Your task to perform on an android device: change keyboard looks Image 0: 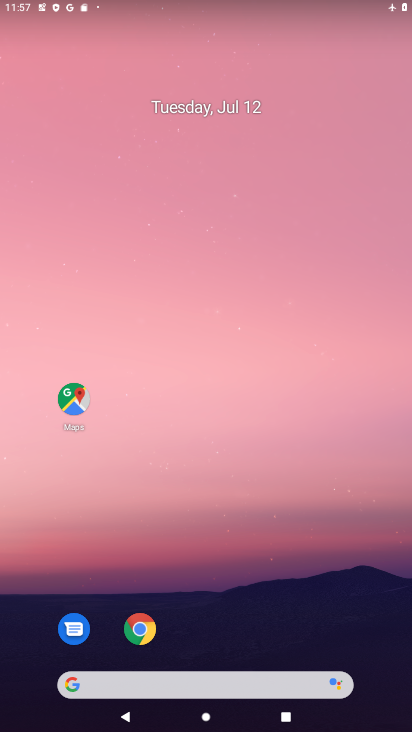
Step 0: drag from (205, 615) to (291, 200)
Your task to perform on an android device: change keyboard looks Image 1: 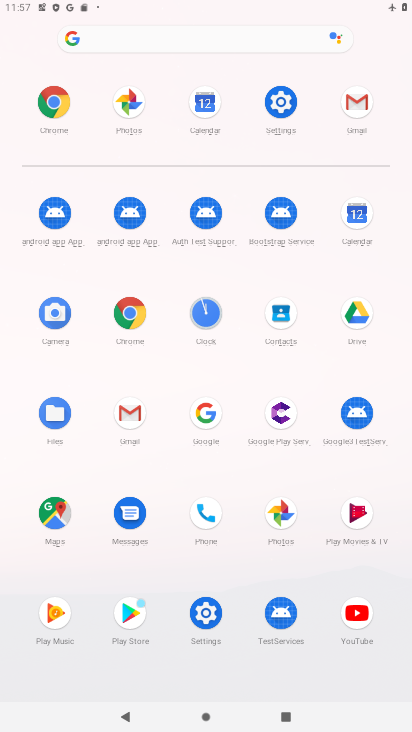
Step 1: click (290, 98)
Your task to perform on an android device: change keyboard looks Image 2: 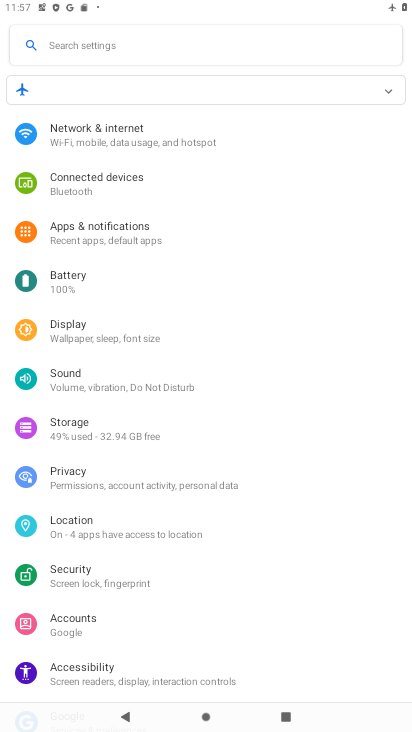
Step 2: drag from (80, 586) to (46, 586)
Your task to perform on an android device: change keyboard looks Image 3: 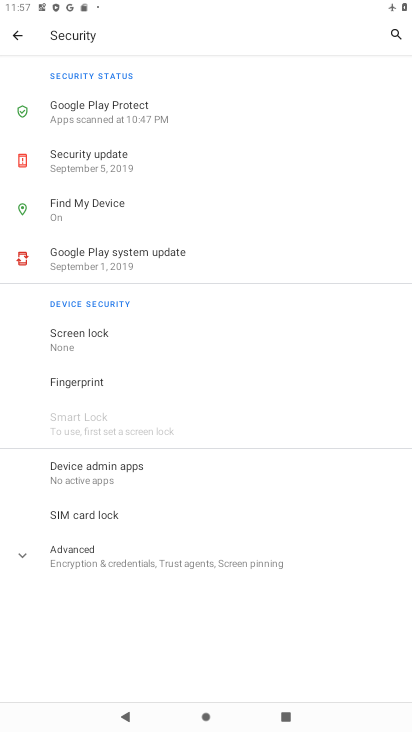
Step 3: click (22, 29)
Your task to perform on an android device: change keyboard looks Image 4: 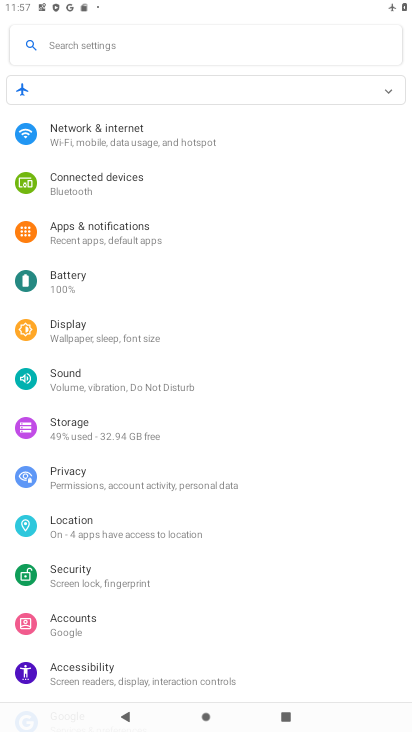
Step 4: click (73, 659)
Your task to perform on an android device: change keyboard looks Image 5: 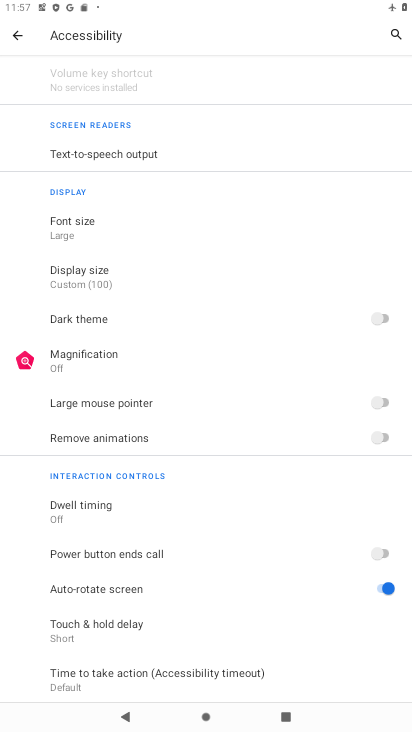
Step 5: click (17, 30)
Your task to perform on an android device: change keyboard looks Image 6: 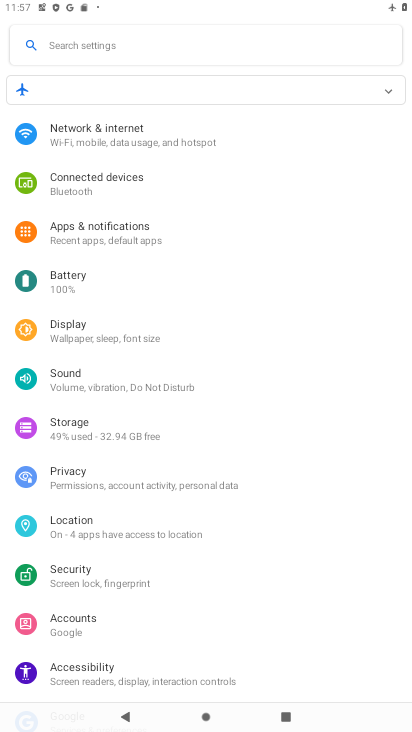
Step 6: drag from (153, 672) to (188, 375)
Your task to perform on an android device: change keyboard looks Image 7: 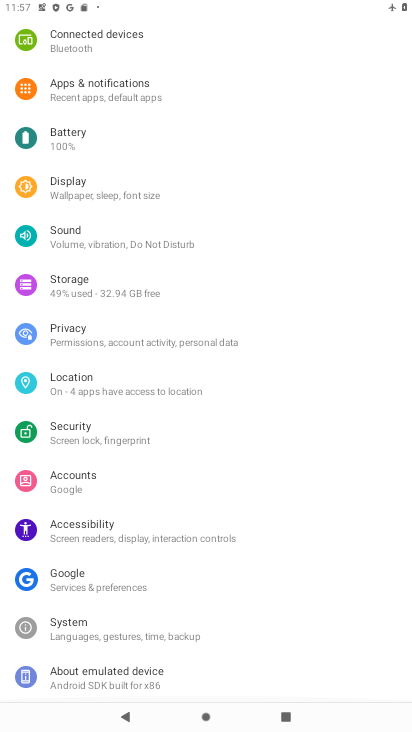
Step 7: click (107, 644)
Your task to perform on an android device: change keyboard looks Image 8: 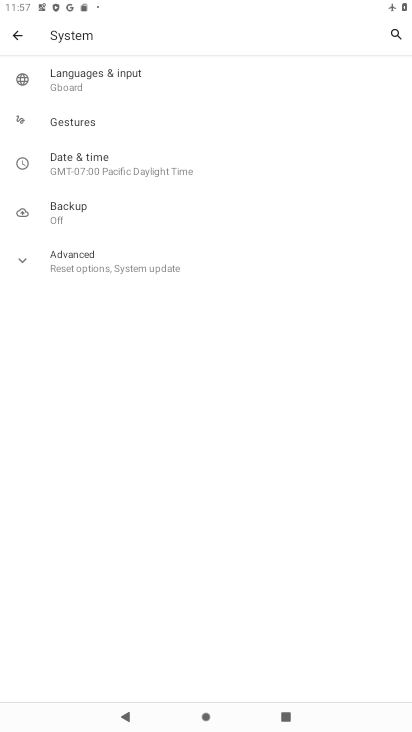
Step 8: click (56, 71)
Your task to perform on an android device: change keyboard looks Image 9: 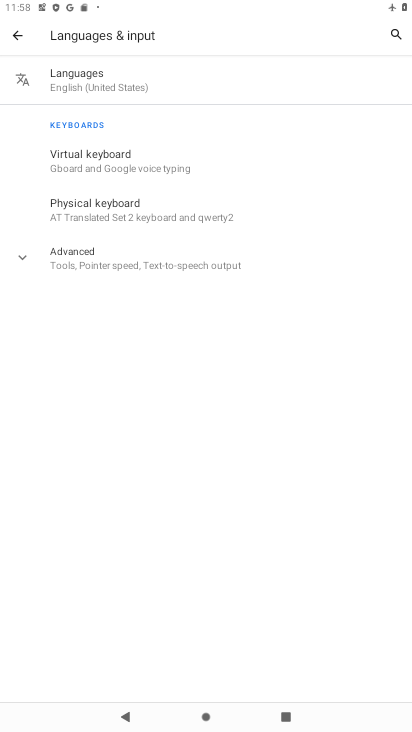
Step 9: click (78, 72)
Your task to perform on an android device: change keyboard looks Image 10: 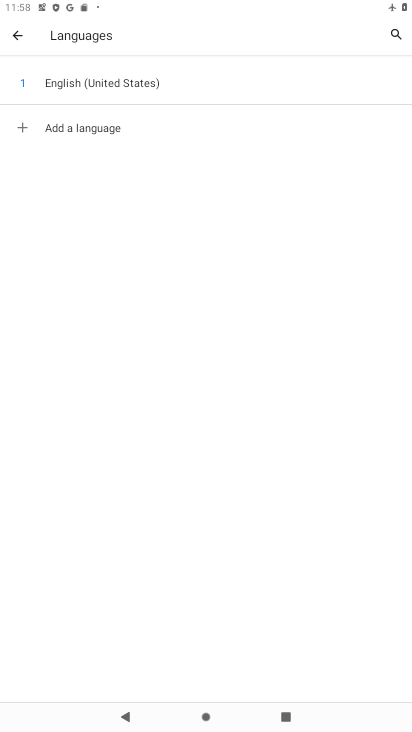
Step 10: click (16, 28)
Your task to perform on an android device: change keyboard looks Image 11: 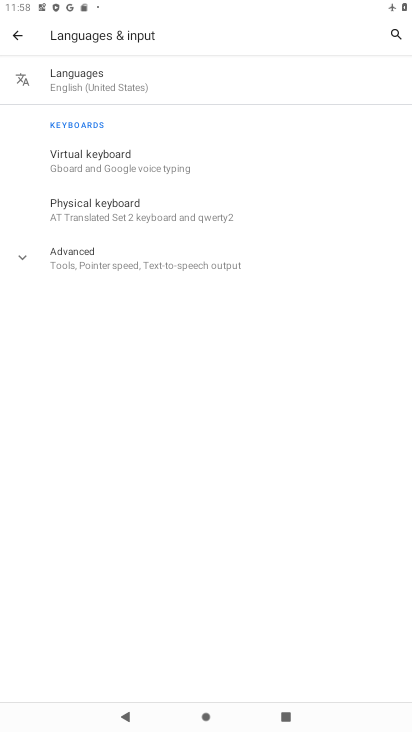
Step 11: click (72, 141)
Your task to perform on an android device: change keyboard looks Image 12: 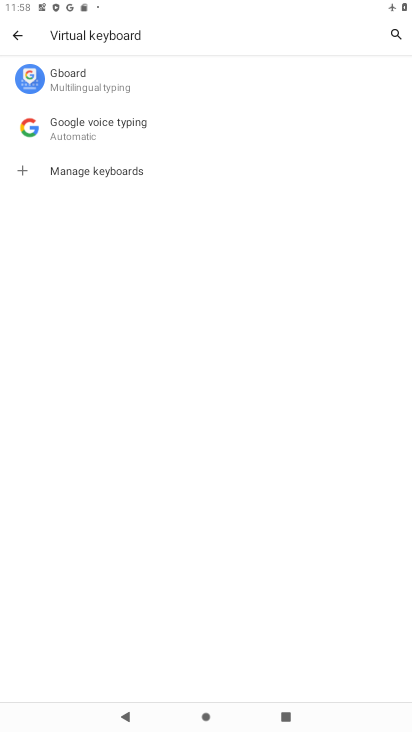
Step 12: click (61, 67)
Your task to perform on an android device: change keyboard looks Image 13: 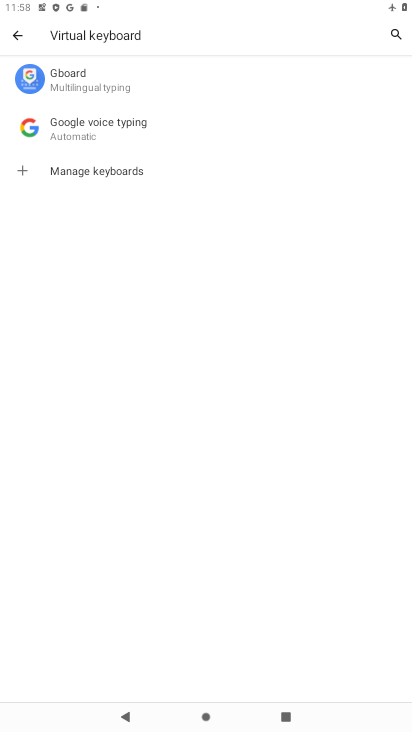
Step 13: click (56, 68)
Your task to perform on an android device: change keyboard looks Image 14: 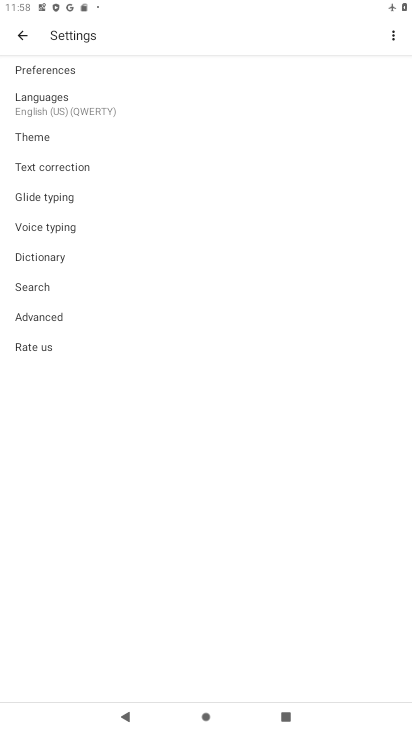
Step 14: click (19, 120)
Your task to perform on an android device: change keyboard looks Image 15: 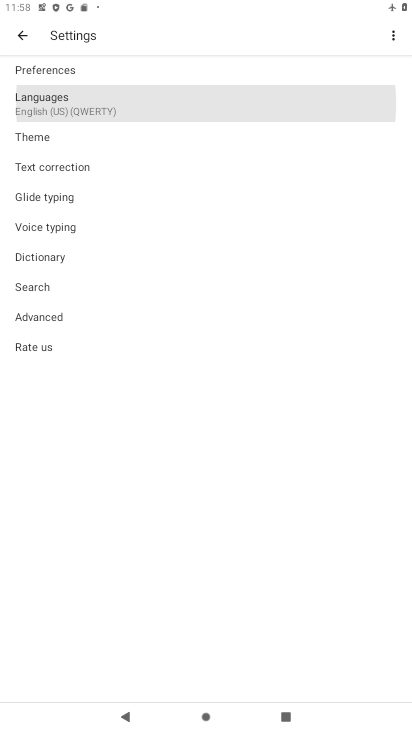
Step 15: click (19, 120)
Your task to perform on an android device: change keyboard looks Image 16: 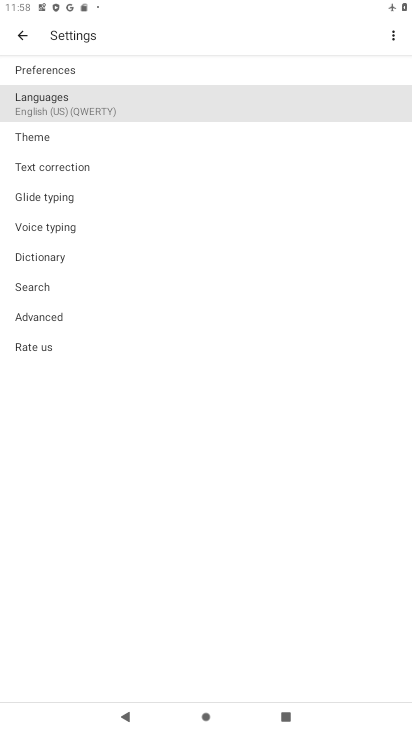
Step 16: click (19, 126)
Your task to perform on an android device: change keyboard looks Image 17: 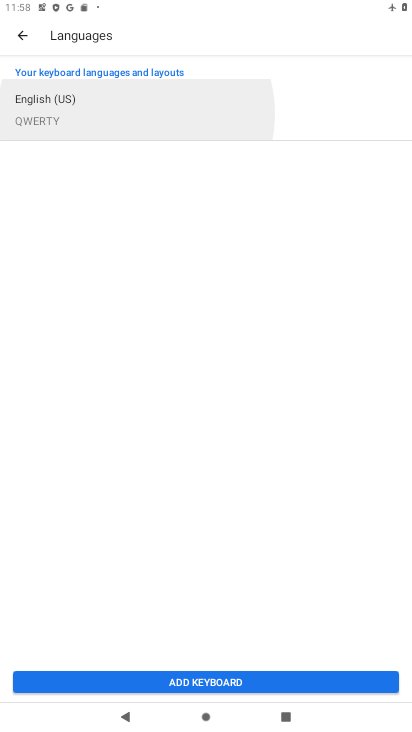
Step 17: click (19, 126)
Your task to perform on an android device: change keyboard looks Image 18: 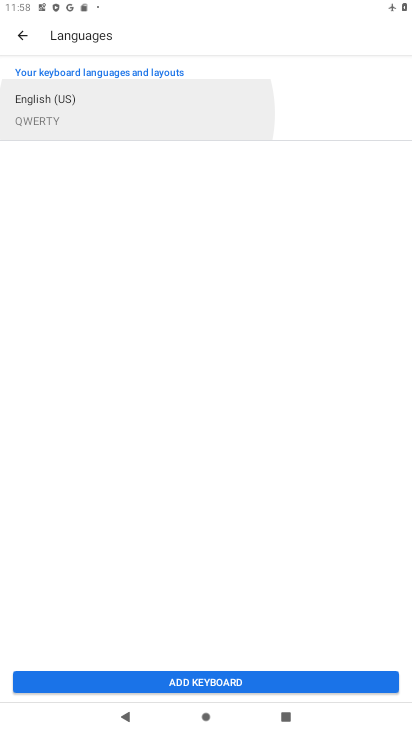
Step 18: click (19, 126)
Your task to perform on an android device: change keyboard looks Image 19: 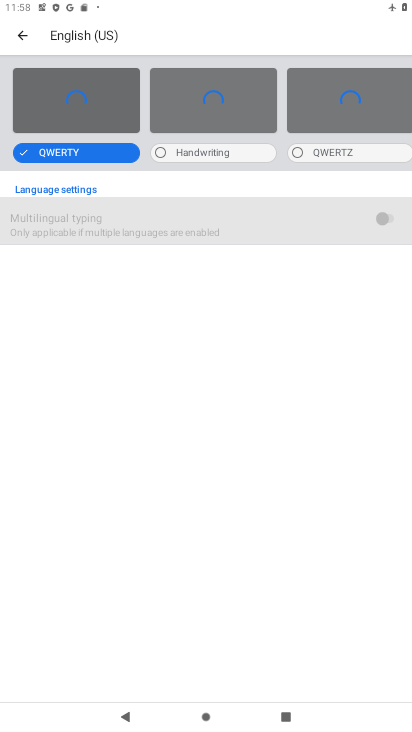
Step 19: click (26, 45)
Your task to perform on an android device: change keyboard looks Image 20: 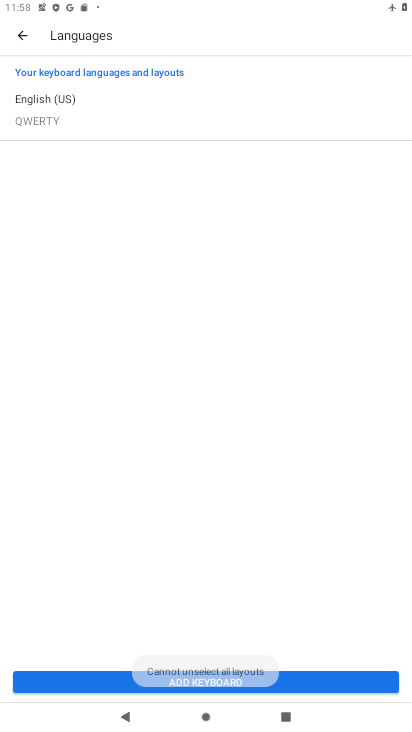
Step 20: click (26, 38)
Your task to perform on an android device: change keyboard looks Image 21: 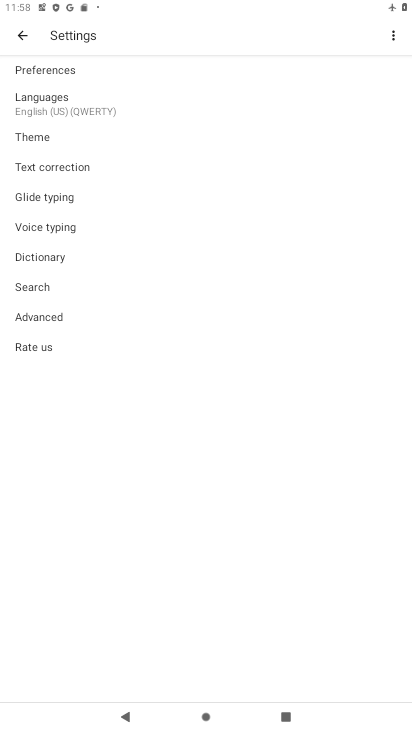
Step 21: click (50, 131)
Your task to perform on an android device: change keyboard looks Image 22: 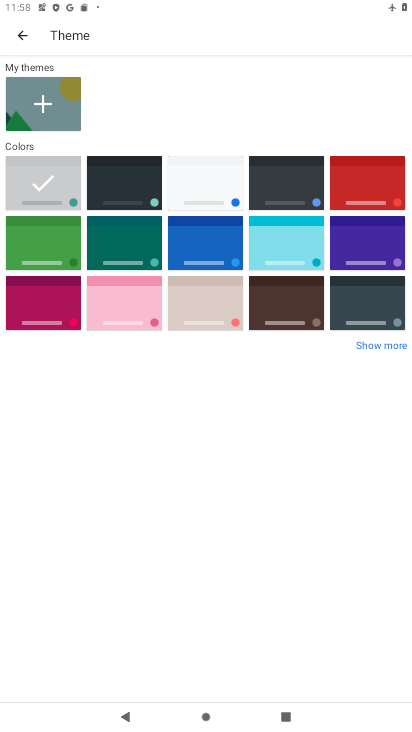
Step 22: click (117, 304)
Your task to perform on an android device: change keyboard looks Image 23: 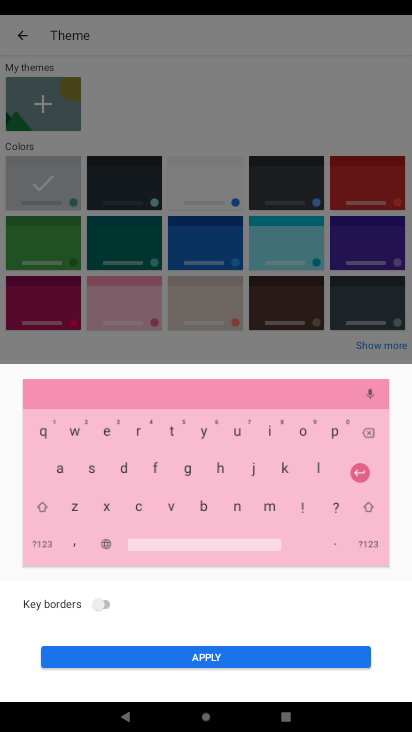
Step 23: click (199, 650)
Your task to perform on an android device: change keyboard looks Image 24: 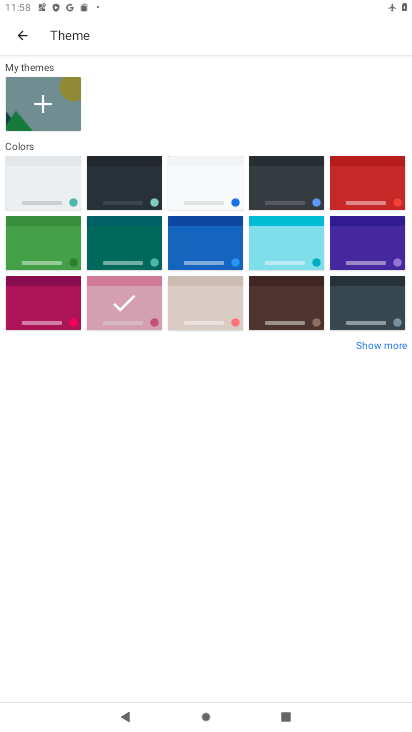
Step 24: task complete